Your task to perform on an android device: Go to display settings Image 0: 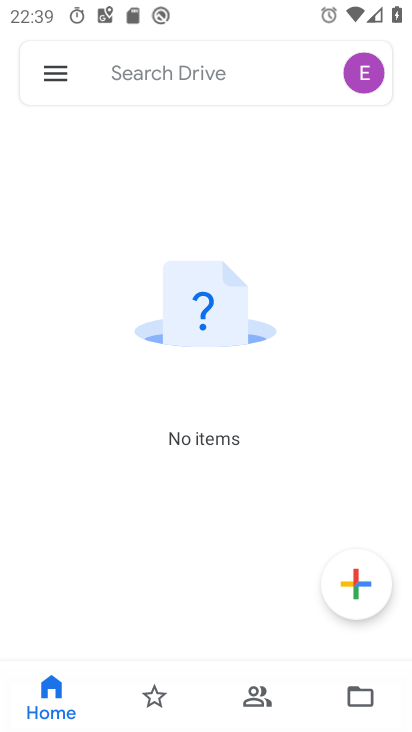
Step 0: press home button
Your task to perform on an android device: Go to display settings Image 1: 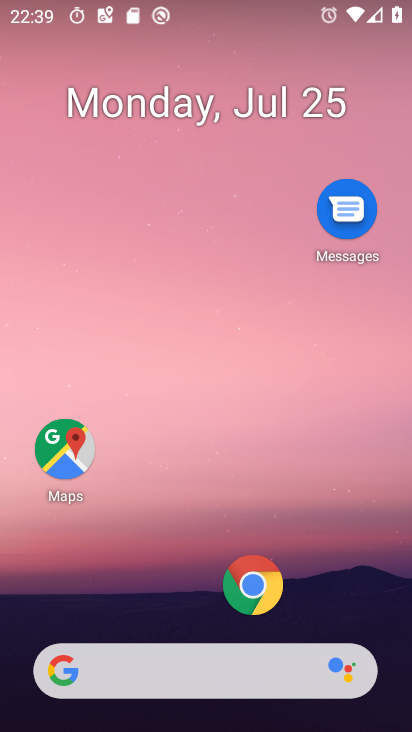
Step 1: drag from (186, 684) to (321, 220)
Your task to perform on an android device: Go to display settings Image 2: 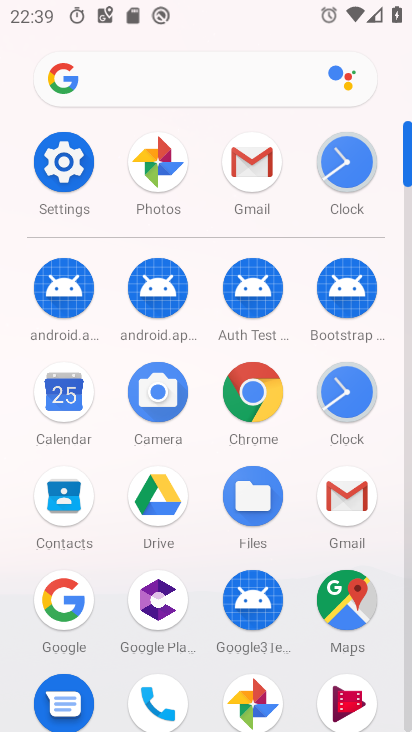
Step 2: click (67, 170)
Your task to perform on an android device: Go to display settings Image 3: 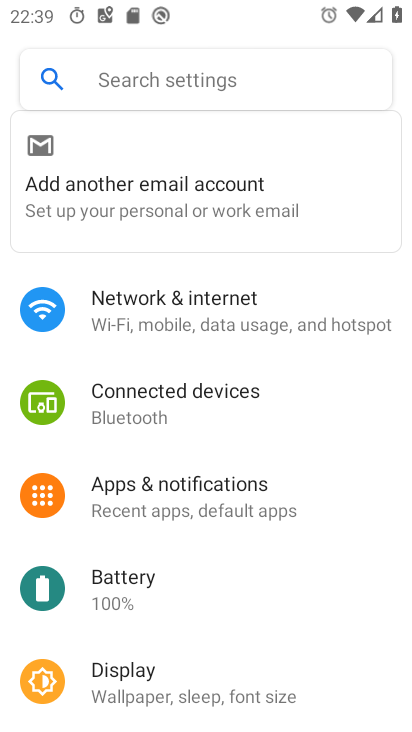
Step 3: drag from (202, 628) to (262, 330)
Your task to perform on an android device: Go to display settings Image 4: 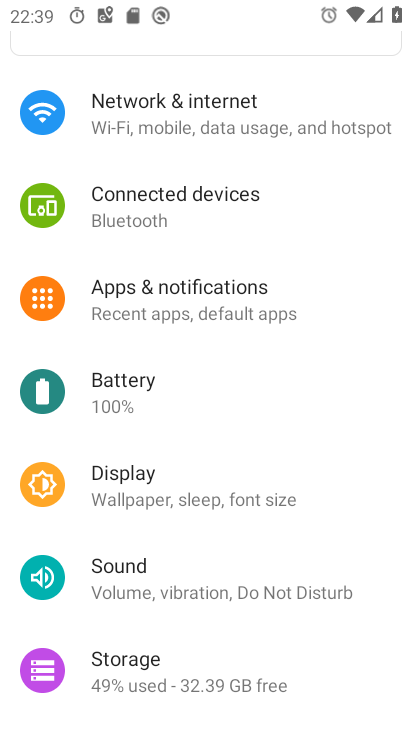
Step 4: click (154, 489)
Your task to perform on an android device: Go to display settings Image 5: 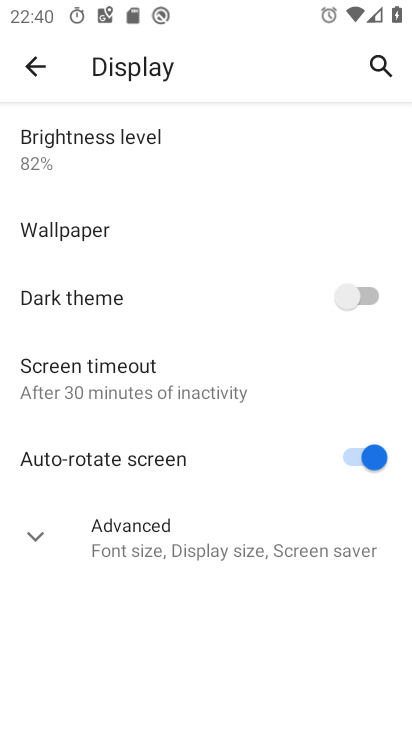
Step 5: task complete